Your task to perform on an android device: turn on showing notifications on the lock screen Image 0: 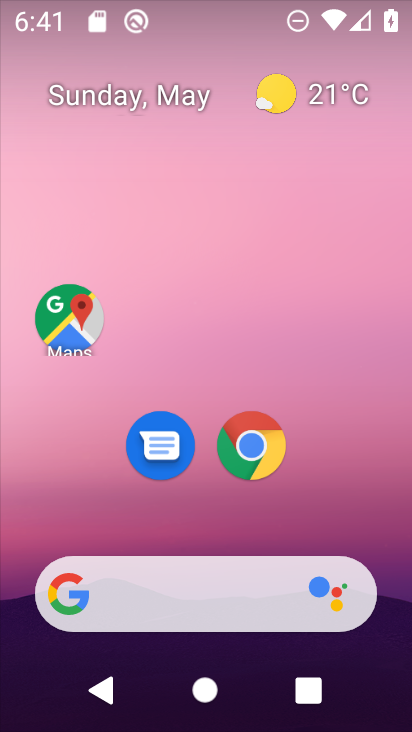
Step 0: drag from (349, 494) to (212, 14)
Your task to perform on an android device: turn on showing notifications on the lock screen Image 1: 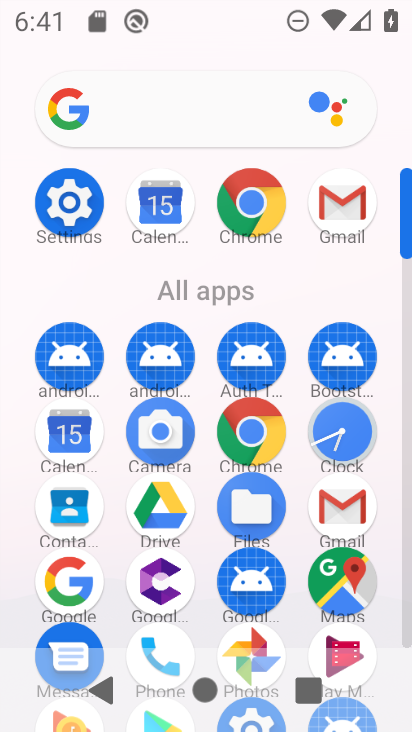
Step 1: click (66, 199)
Your task to perform on an android device: turn on showing notifications on the lock screen Image 2: 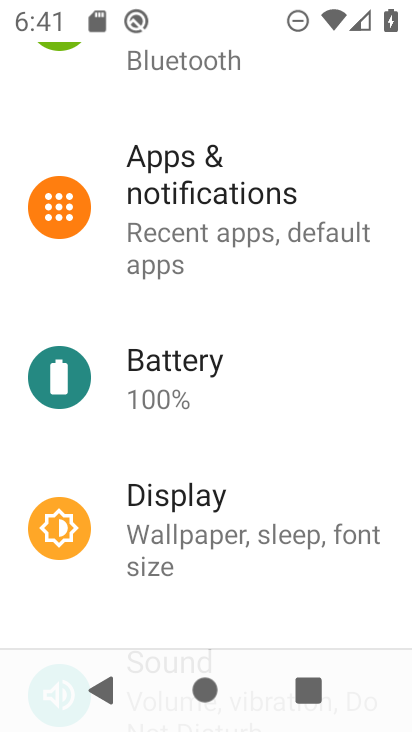
Step 2: click (184, 182)
Your task to perform on an android device: turn on showing notifications on the lock screen Image 3: 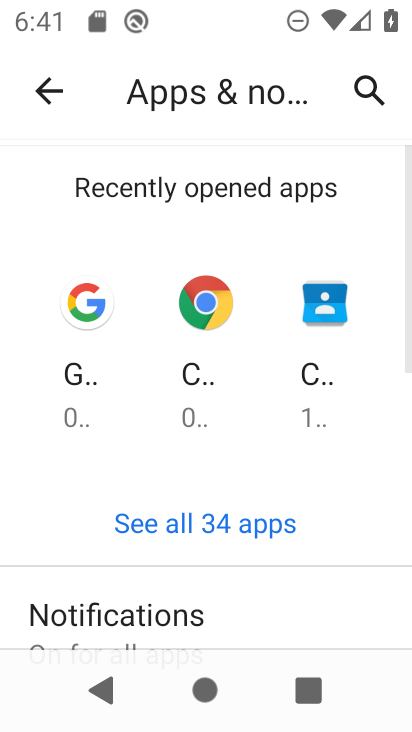
Step 3: drag from (261, 568) to (169, 279)
Your task to perform on an android device: turn on showing notifications on the lock screen Image 4: 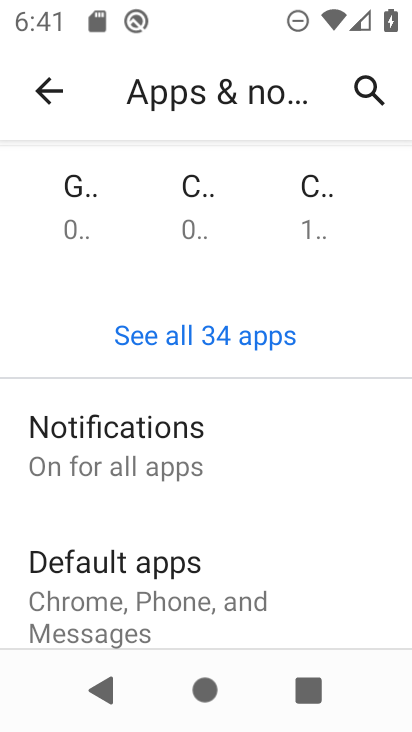
Step 4: drag from (206, 490) to (146, 328)
Your task to perform on an android device: turn on showing notifications on the lock screen Image 5: 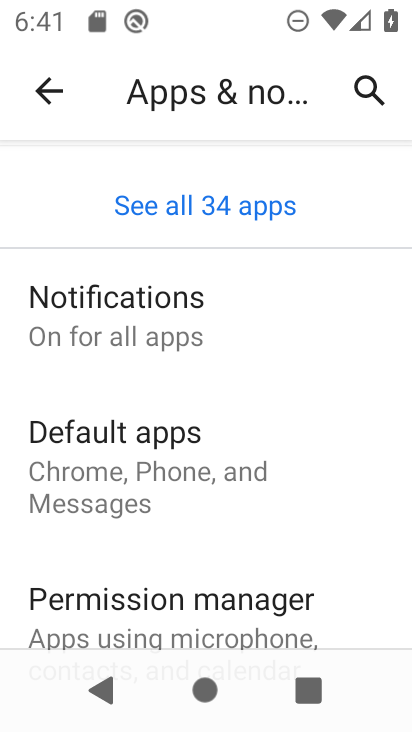
Step 5: click (111, 293)
Your task to perform on an android device: turn on showing notifications on the lock screen Image 6: 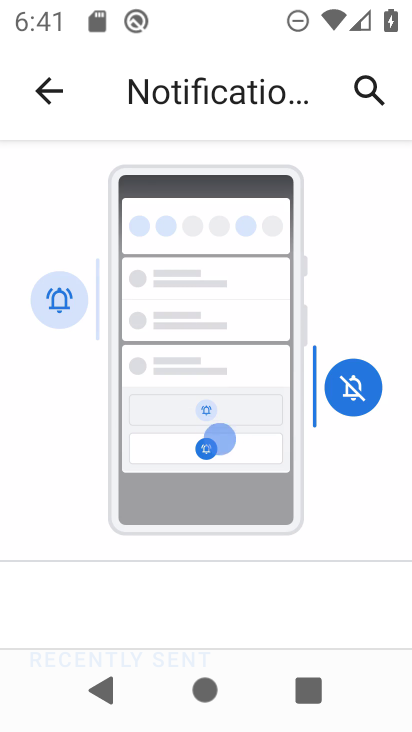
Step 6: drag from (317, 552) to (256, 249)
Your task to perform on an android device: turn on showing notifications on the lock screen Image 7: 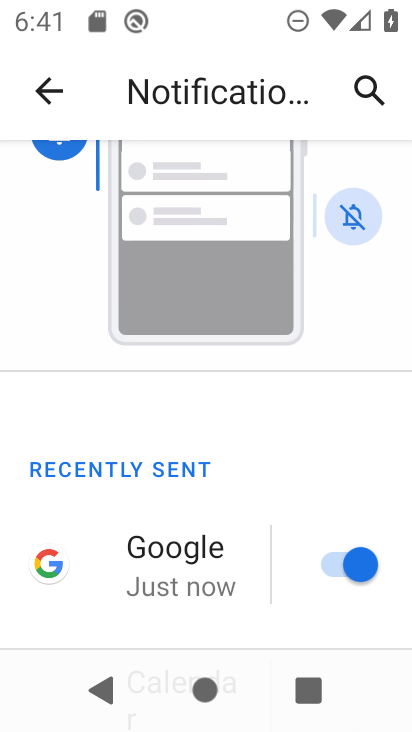
Step 7: drag from (249, 442) to (185, 124)
Your task to perform on an android device: turn on showing notifications on the lock screen Image 8: 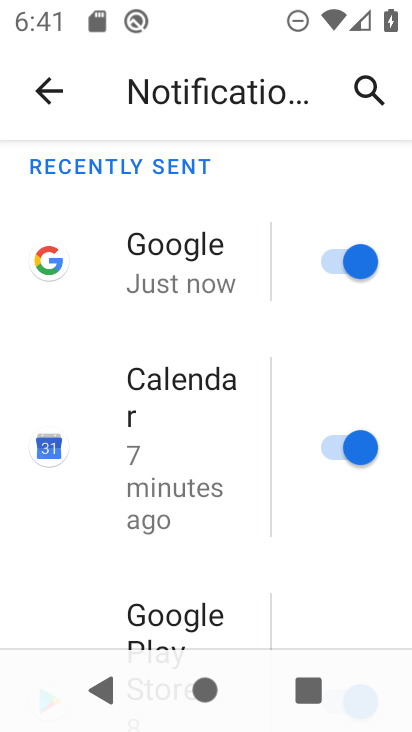
Step 8: drag from (200, 562) to (136, 221)
Your task to perform on an android device: turn on showing notifications on the lock screen Image 9: 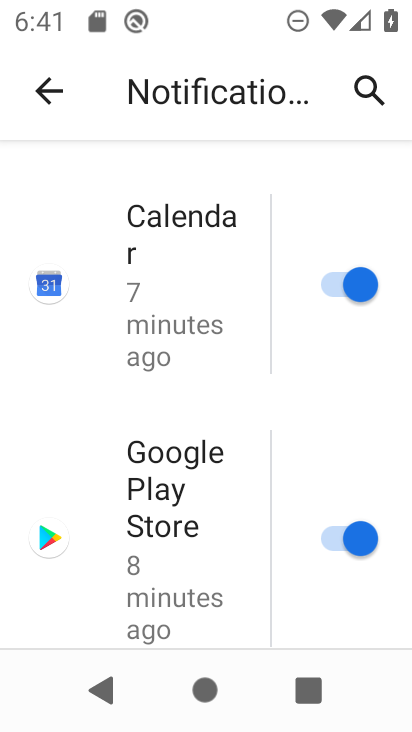
Step 9: drag from (207, 555) to (98, 166)
Your task to perform on an android device: turn on showing notifications on the lock screen Image 10: 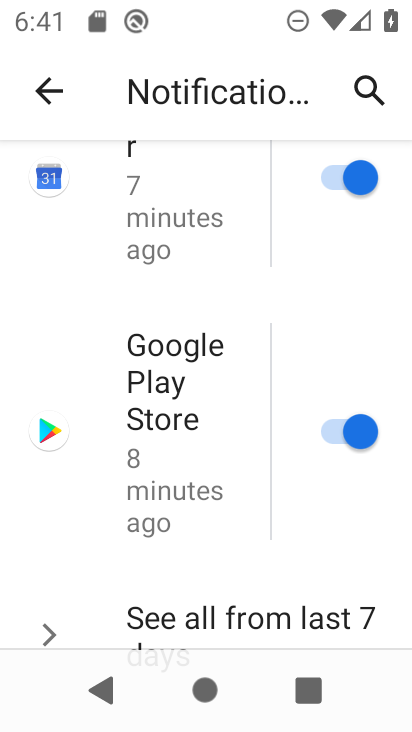
Step 10: drag from (263, 542) to (215, 282)
Your task to perform on an android device: turn on showing notifications on the lock screen Image 11: 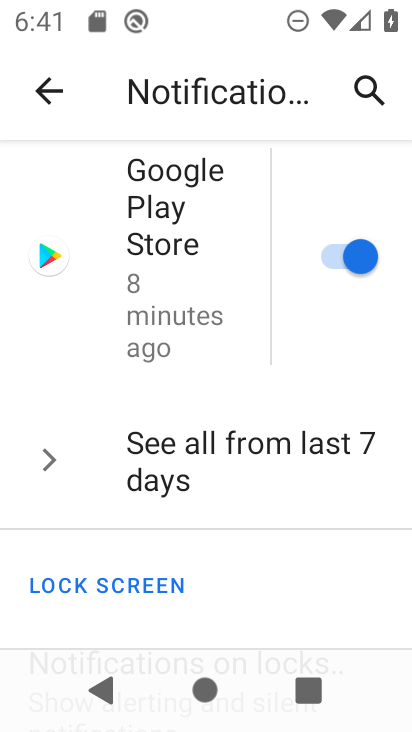
Step 11: drag from (216, 537) to (168, 234)
Your task to perform on an android device: turn on showing notifications on the lock screen Image 12: 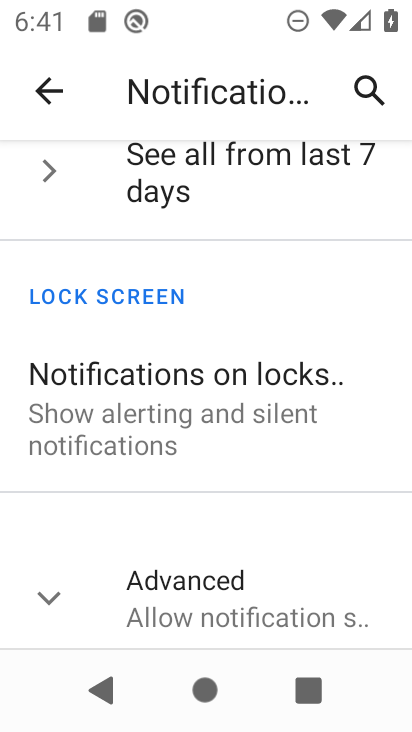
Step 12: click (159, 382)
Your task to perform on an android device: turn on showing notifications on the lock screen Image 13: 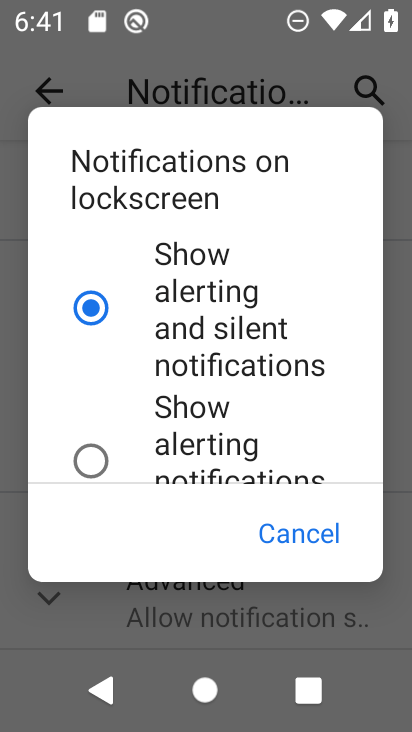
Step 13: task complete